Your task to perform on an android device: What's the weather today? Image 0: 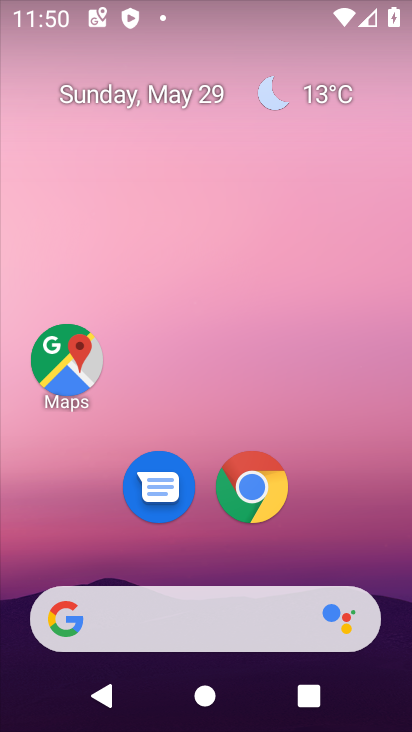
Step 0: click (320, 95)
Your task to perform on an android device: What's the weather today? Image 1: 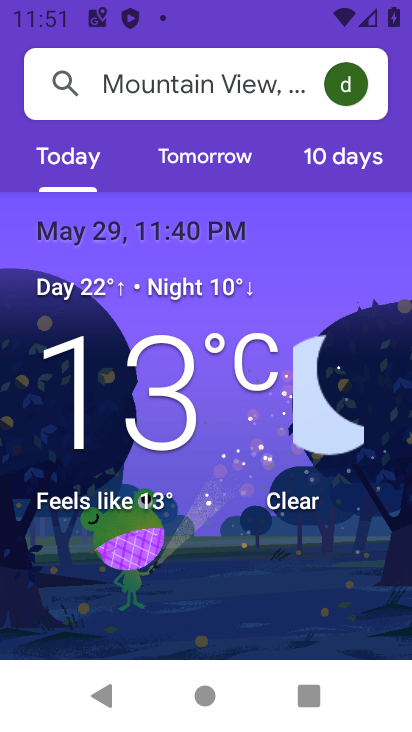
Step 1: task complete